Your task to perform on an android device: Open Android settings Image 0: 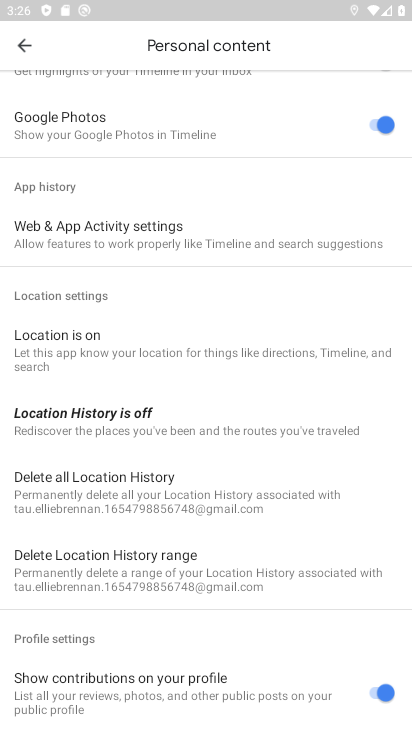
Step 0: press home button
Your task to perform on an android device: Open Android settings Image 1: 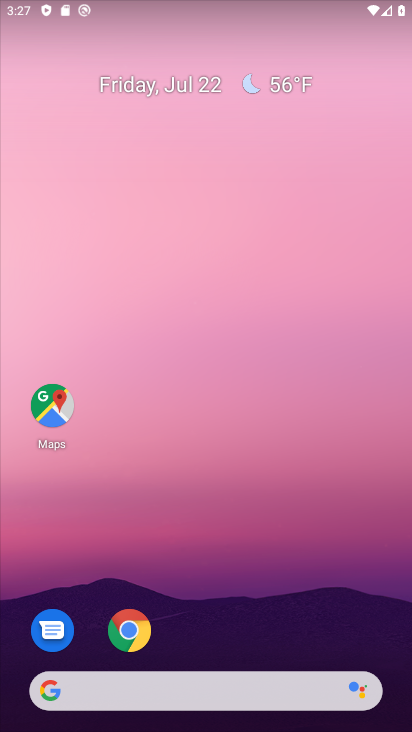
Step 1: drag from (229, 650) to (192, 105)
Your task to perform on an android device: Open Android settings Image 2: 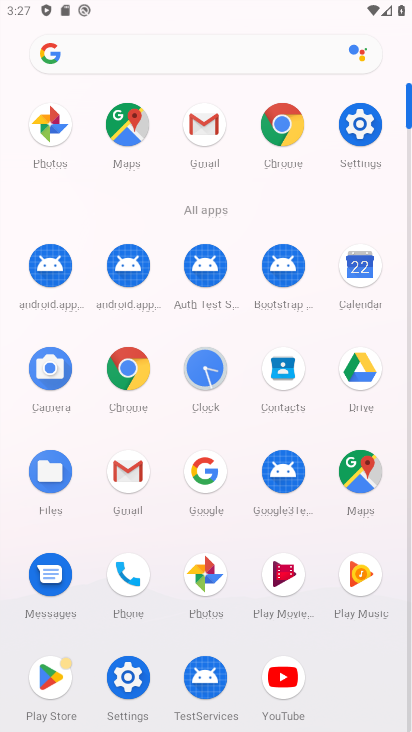
Step 2: click (362, 126)
Your task to perform on an android device: Open Android settings Image 3: 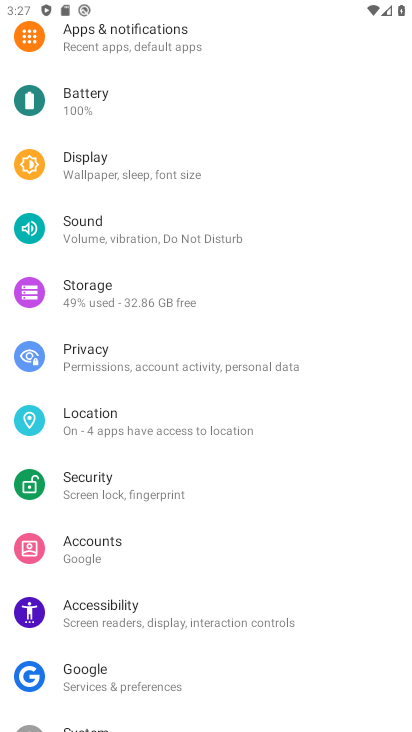
Step 3: task complete